Your task to perform on an android device: star an email in the gmail app Image 0: 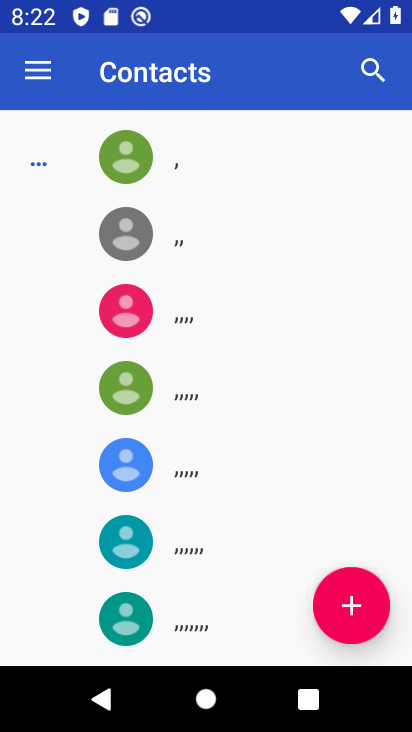
Step 0: press home button
Your task to perform on an android device: star an email in the gmail app Image 1: 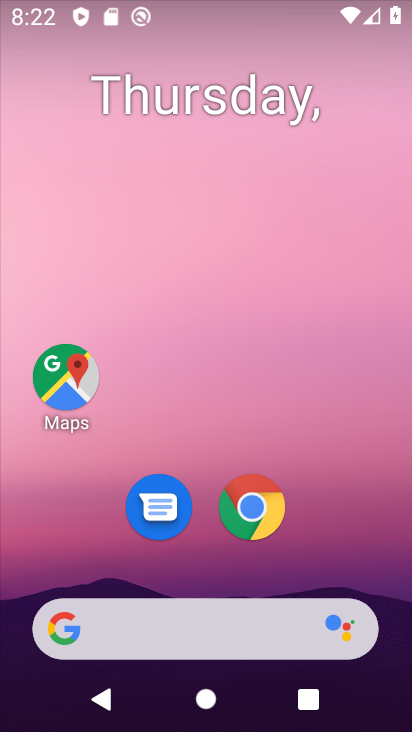
Step 1: drag from (203, 542) to (273, 6)
Your task to perform on an android device: star an email in the gmail app Image 2: 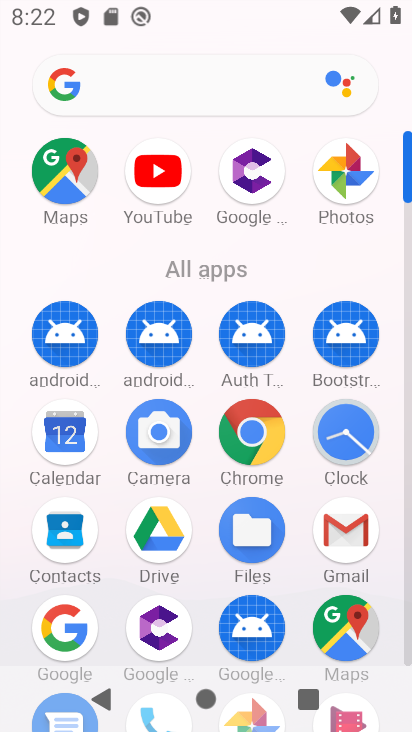
Step 2: click (343, 533)
Your task to perform on an android device: star an email in the gmail app Image 3: 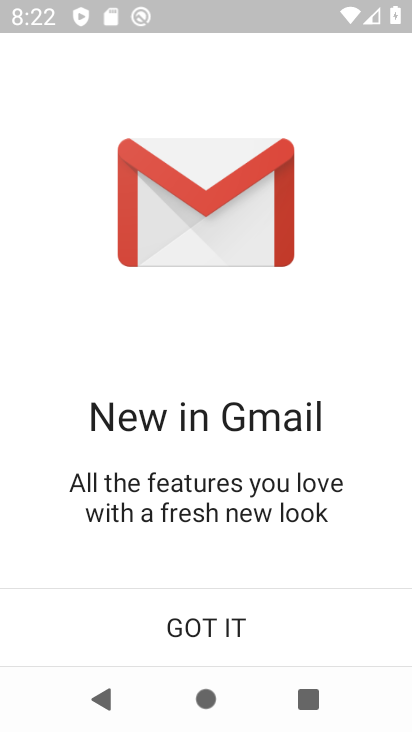
Step 3: click (190, 608)
Your task to perform on an android device: star an email in the gmail app Image 4: 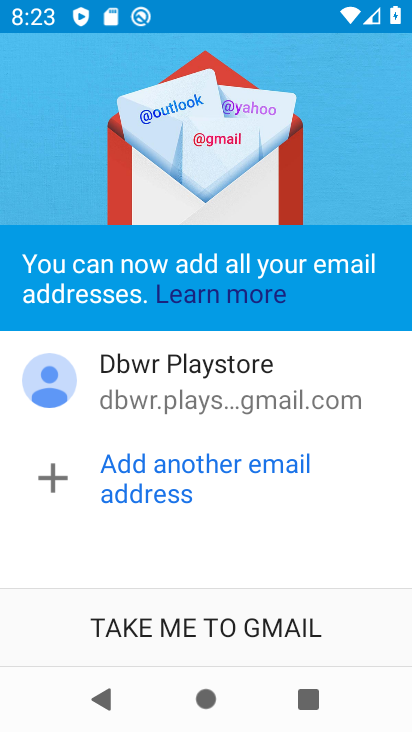
Step 4: click (171, 627)
Your task to perform on an android device: star an email in the gmail app Image 5: 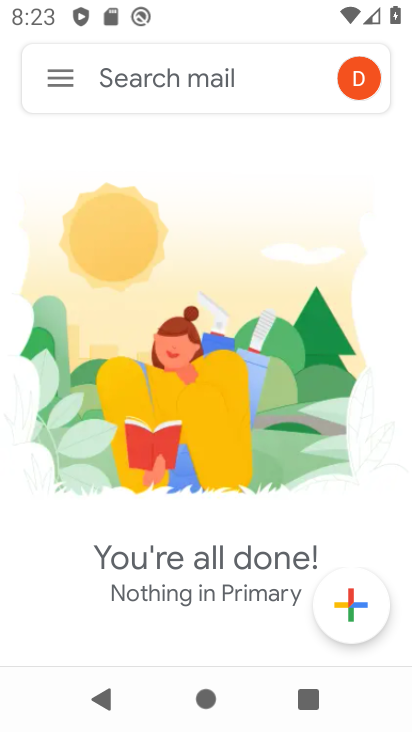
Step 5: click (62, 81)
Your task to perform on an android device: star an email in the gmail app Image 6: 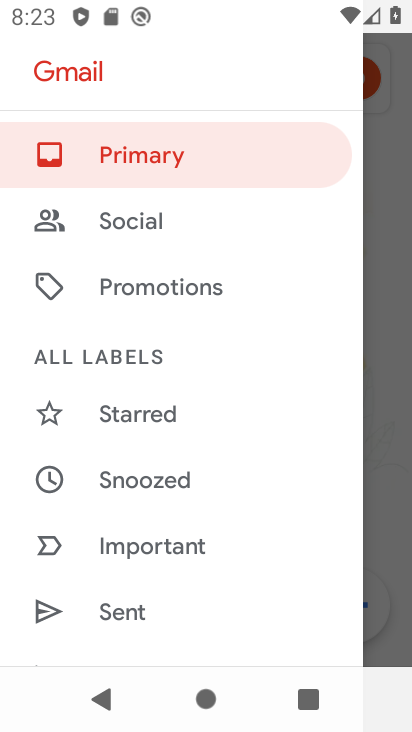
Step 6: drag from (147, 533) to (234, 129)
Your task to perform on an android device: star an email in the gmail app Image 7: 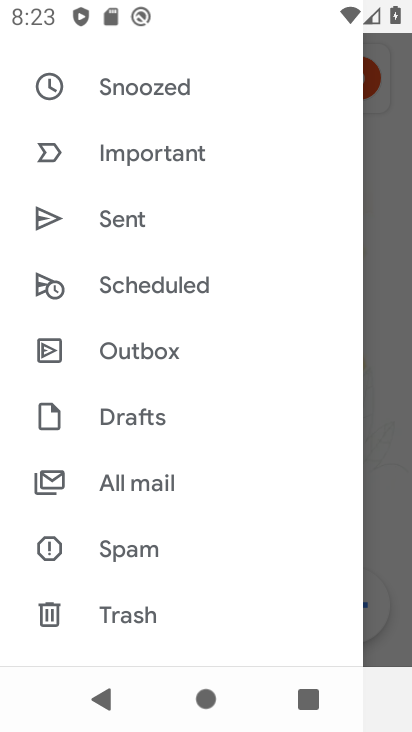
Step 7: click (129, 481)
Your task to perform on an android device: star an email in the gmail app Image 8: 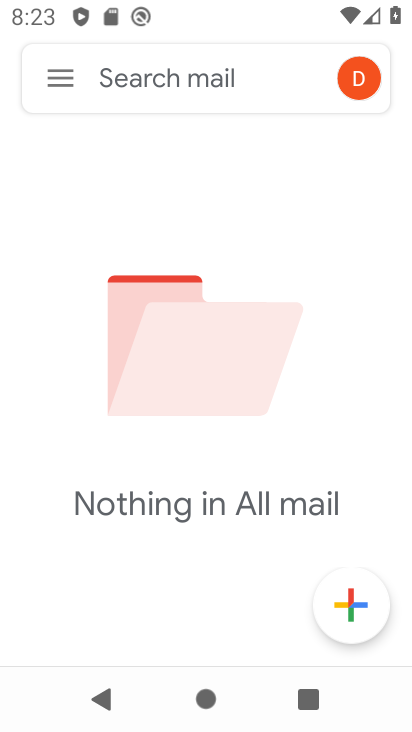
Step 8: task complete